Your task to perform on an android device: Do I have any events tomorrow? Image 0: 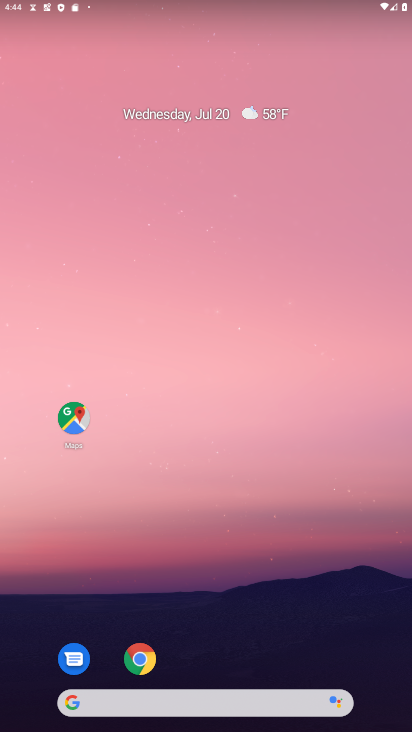
Step 0: drag from (284, 707) to (323, 8)
Your task to perform on an android device: Do I have any events tomorrow? Image 1: 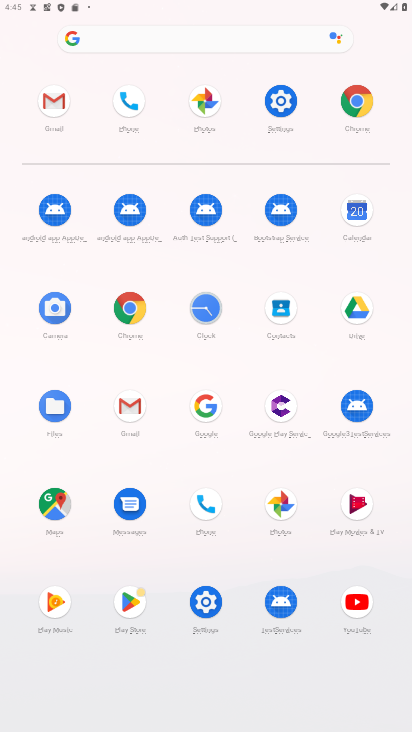
Step 1: click (361, 218)
Your task to perform on an android device: Do I have any events tomorrow? Image 2: 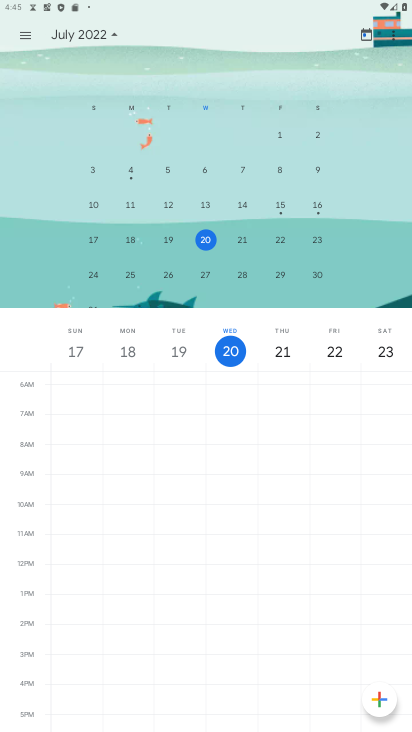
Step 2: click (242, 241)
Your task to perform on an android device: Do I have any events tomorrow? Image 3: 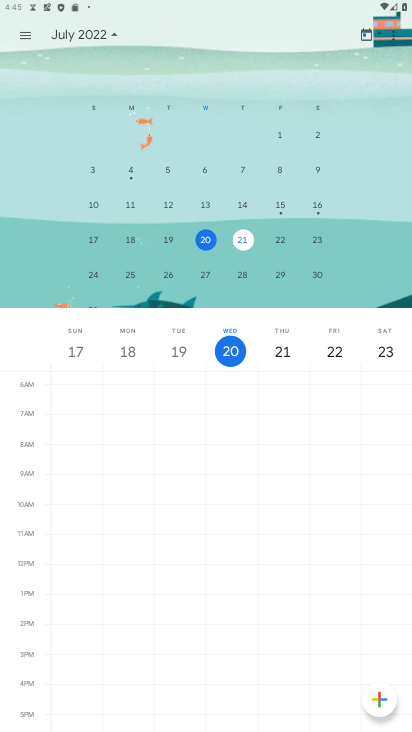
Step 3: task complete